Your task to perform on an android device: toggle pop-ups in chrome Image 0: 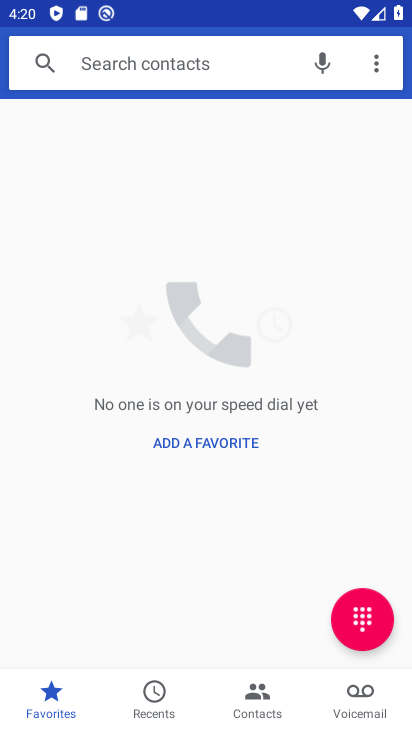
Step 0: click (367, 691)
Your task to perform on an android device: toggle pop-ups in chrome Image 1: 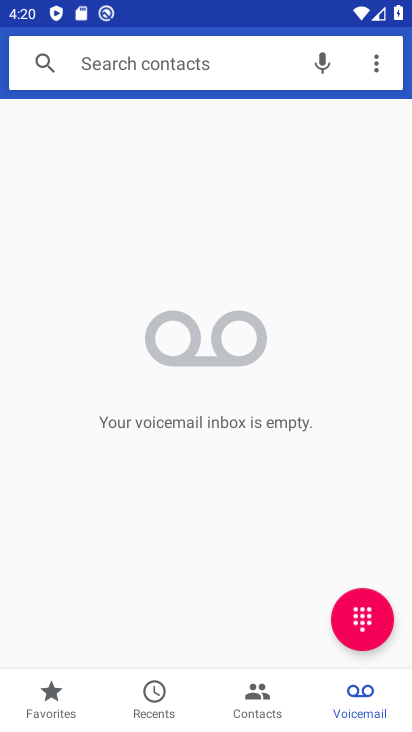
Step 1: click (367, 691)
Your task to perform on an android device: toggle pop-ups in chrome Image 2: 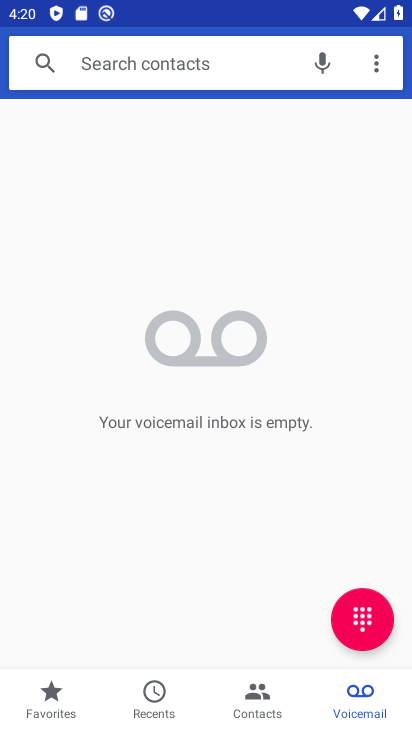
Step 2: press home button
Your task to perform on an android device: toggle pop-ups in chrome Image 3: 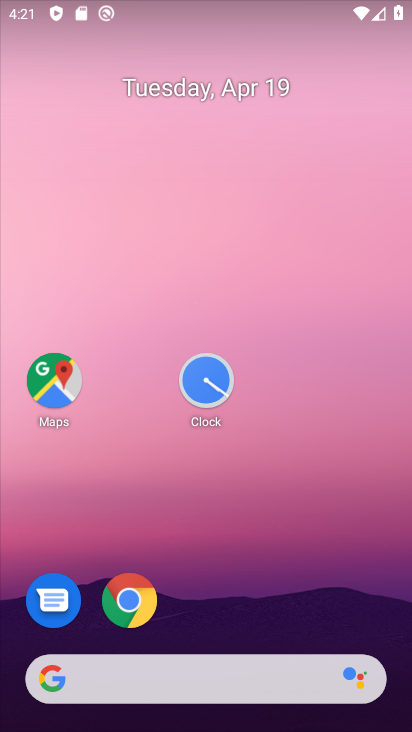
Step 3: drag from (334, 530) to (142, 183)
Your task to perform on an android device: toggle pop-ups in chrome Image 4: 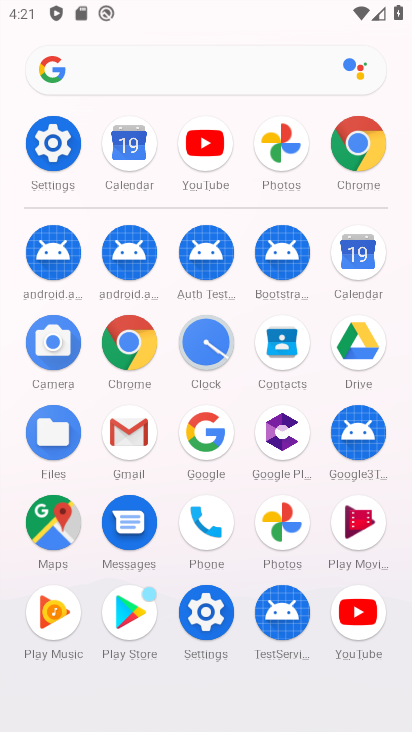
Step 4: drag from (331, 648) to (182, 360)
Your task to perform on an android device: toggle pop-ups in chrome Image 5: 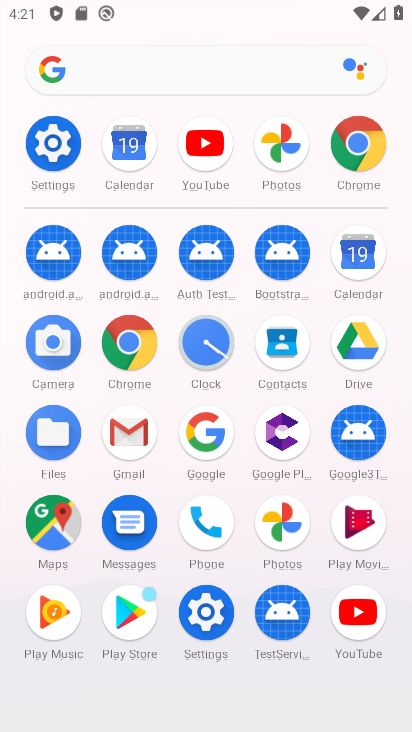
Step 5: click (361, 166)
Your task to perform on an android device: toggle pop-ups in chrome Image 6: 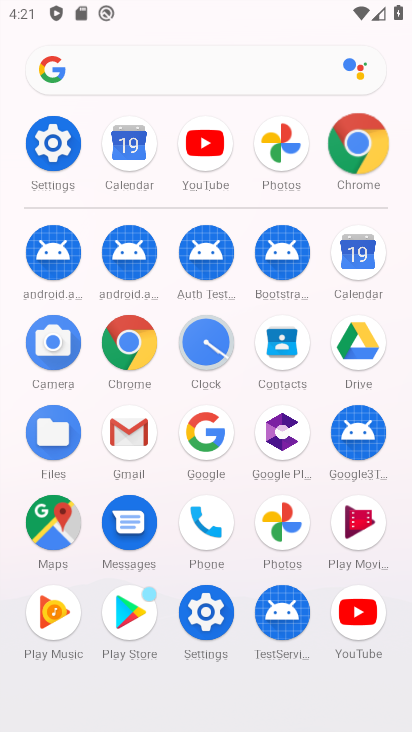
Step 6: click (361, 166)
Your task to perform on an android device: toggle pop-ups in chrome Image 7: 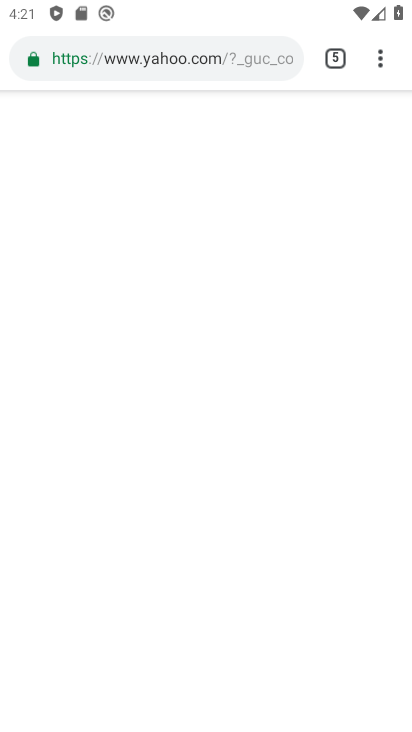
Step 7: click (377, 54)
Your task to perform on an android device: toggle pop-ups in chrome Image 8: 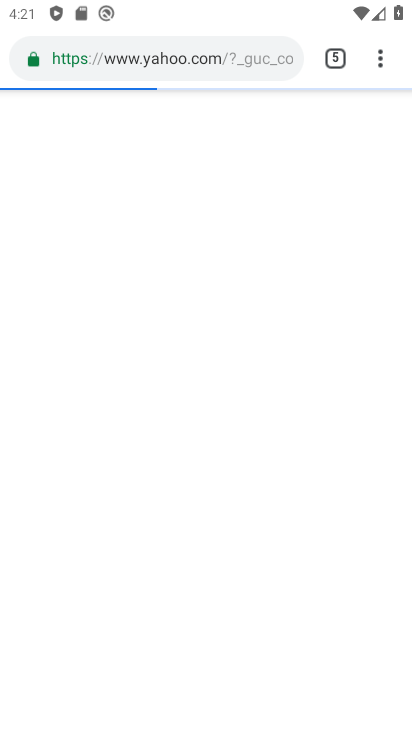
Step 8: click (377, 54)
Your task to perform on an android device: toggle pop-ups in chrome Image 9: 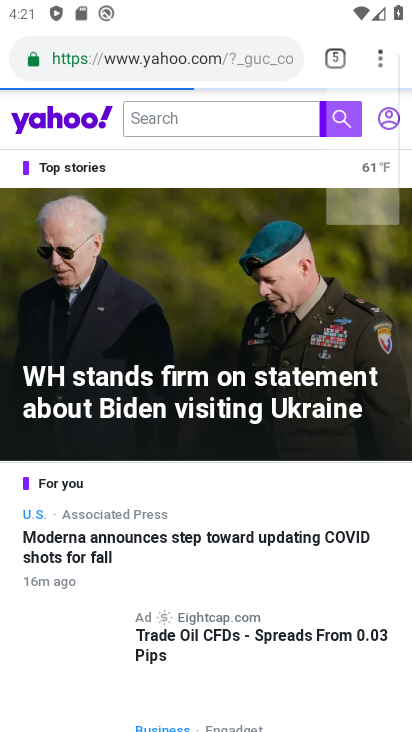
Step 9: click (377, 54)
Your task to perform on an android device: toggle pop-ups in chrome Image 10: 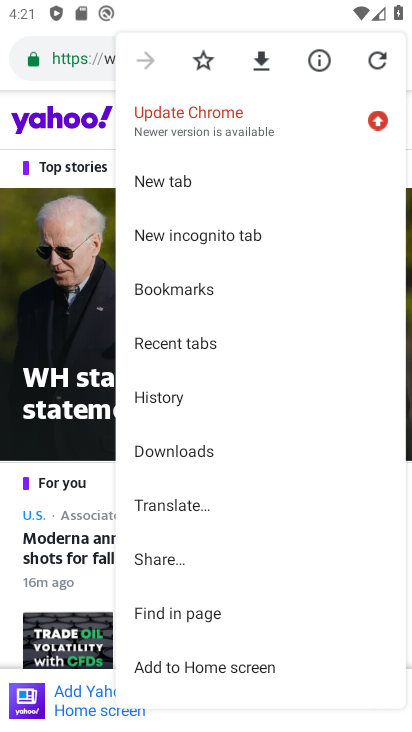
Step 10: drag from (235, 526) to (205, 184)
Your task to perform on an android device: toggle pop-ups in chrome Image 11: 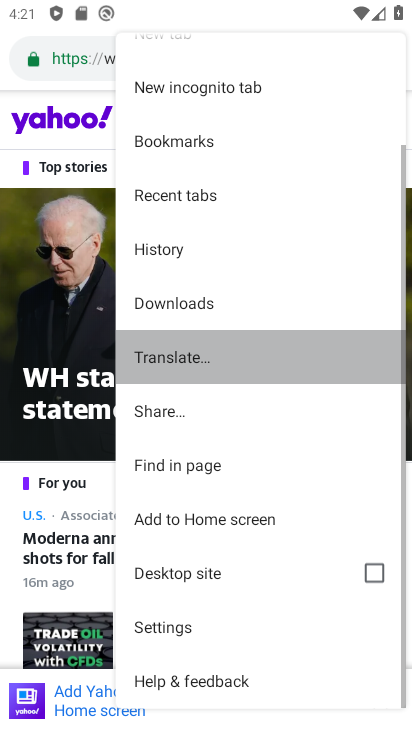
Step 11: drag from (290, 452) to (235, 191)
Your task to perform on an android device: toggle pop-ups in chrome Image 12: 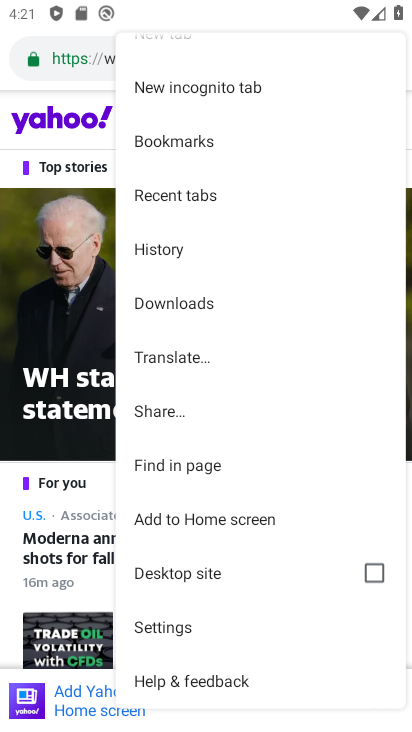
Step 12: click (157, 628)
Your task to perform on an android device: toggle pop-ups in chrome Image 13: 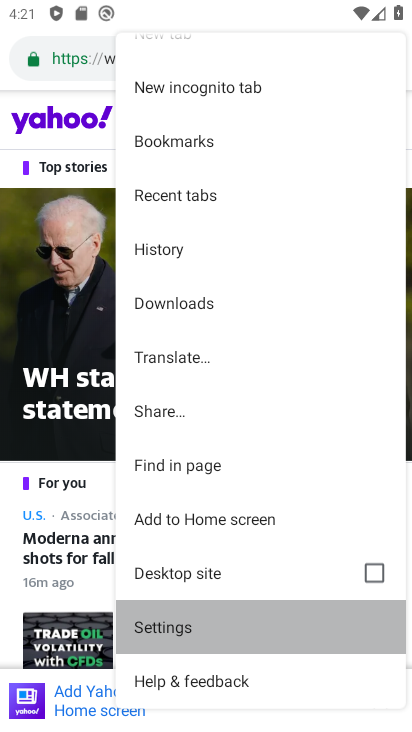
Step 13: click (157, 628)
Your task to perform on an android device: toggle pop-ups in chrome Image 14: 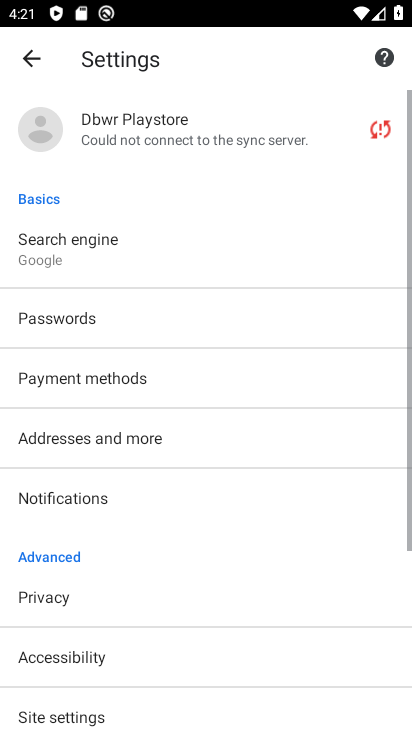
Step 14: drag from (170, 451) to (82, 81)
Your task to perform on an android device: toggle pop-ups in chrome Image 15: 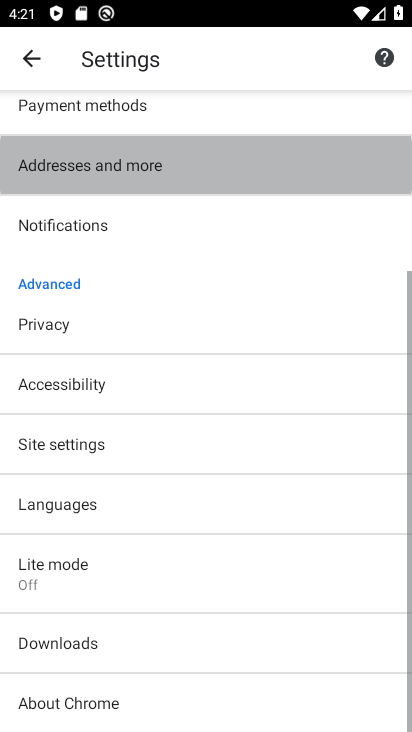
Step 15: drag from (147, 441) to (63, 101)
Your task to perform on an android device: toggle pop-ups in chrome Image 16: 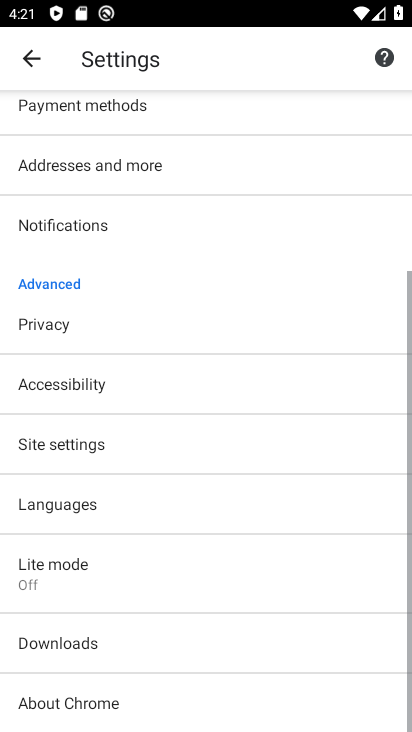
Step 16: drag from (144, 266) to (141, 148)
Your task to perform on an android device: toggle pop-ups in chrome Image 17: 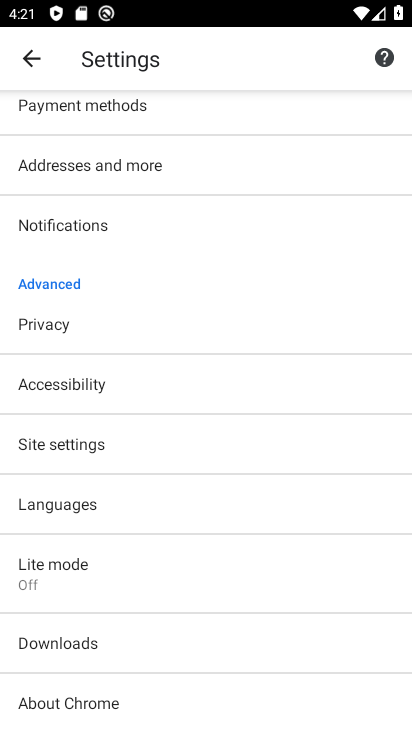
Step 17: click (52, 446)
Your task to perform on an android device: toggle pop-ups in chrome Image 18: 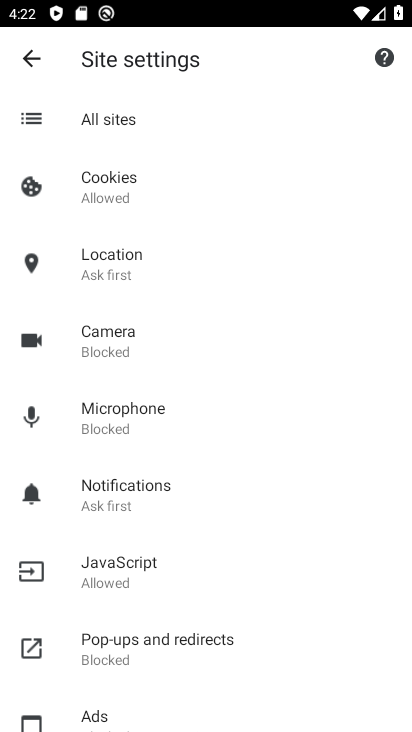
Step 18: drag from (216, 423) to (176, 162)
Your task to perform on an android device: toggle pop-ups in chrome Image 19: 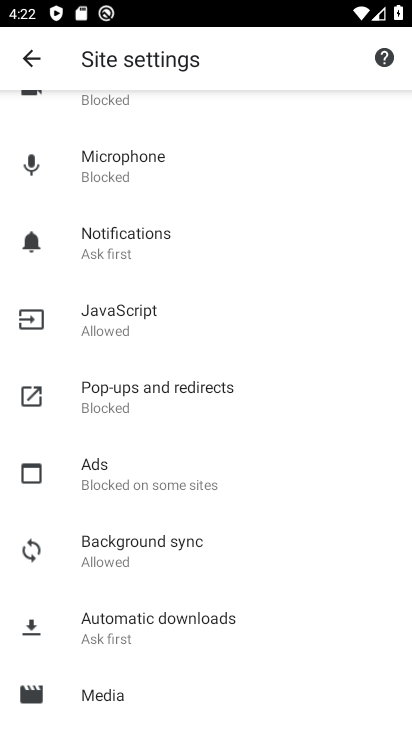
Step 19: click (122, 386)
Your task to perform on an android device: toggle pop-ups in chrome Image 20: 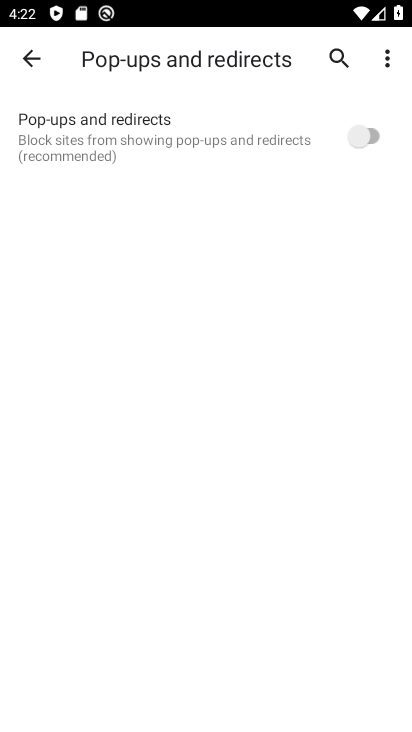
Step 20: click (359, 128)
Your task to perform on an android device: toggle pop-ups in chrome Image 21: 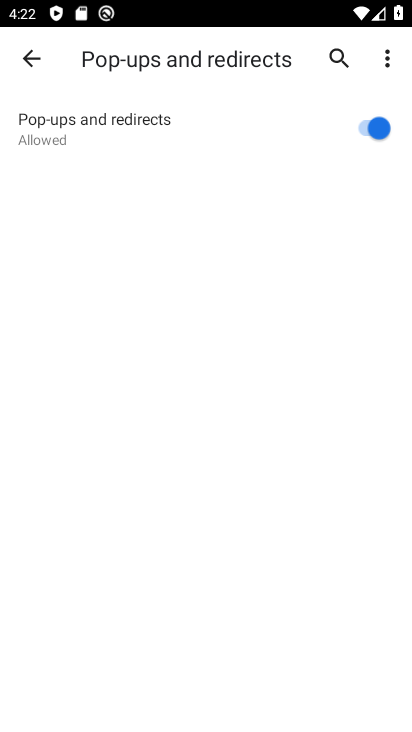
Step 21: task complete